Your task to perform on an android device: Search for "razer kraken" on costco, select the first entry, and add it to the cart. Image 0: 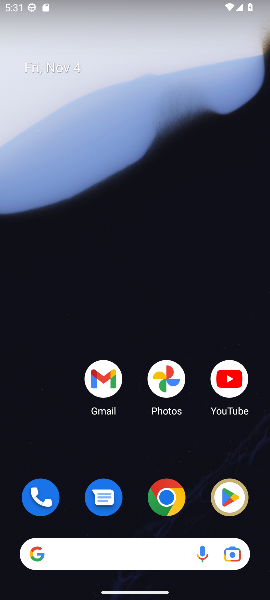
Step 0: click (166, 505)
Your task to perform on an android device: Search for "razer kraken" on costco, select the first entry, and add it to the cart. Image 1: 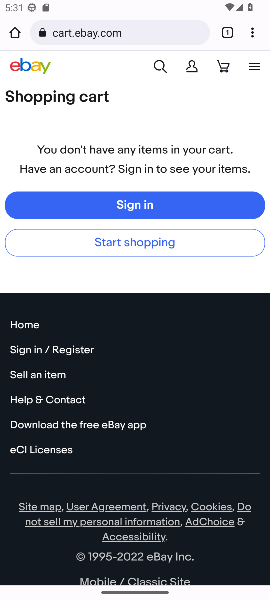
Step 1: click (115, 35)
Your task to perform on an android device: Search for "razer kraken" on costco, select the first entry, and add it to the cart. Image 2: 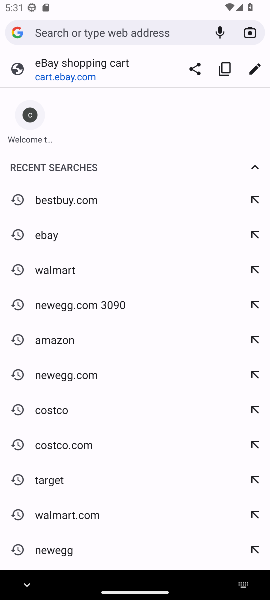
Step 2: click (51, 412)
Your task to perform on an android device: Search for "razer kraken" on costco, select the first entry, and add it to the cart. Image 3: 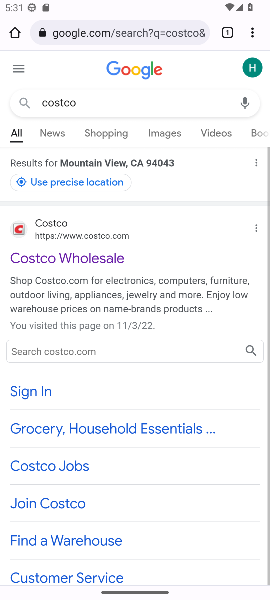
Step 3: click (55, 258)
Your task to perform on an android device: Search for "razer kraken" on costco, select the first entry, and add it to the cart. Image 4: 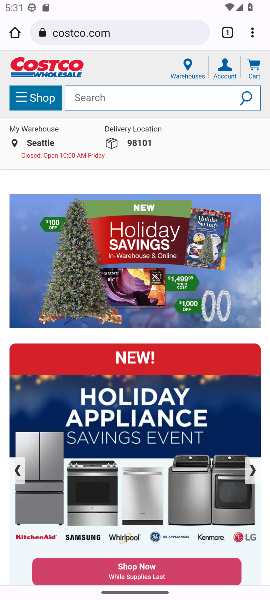
Step 4: click (97, 102)
Your task to perform on an android device: Search for "razer kraken" on costco, select the first entry, and add it to the cart. Image 5: 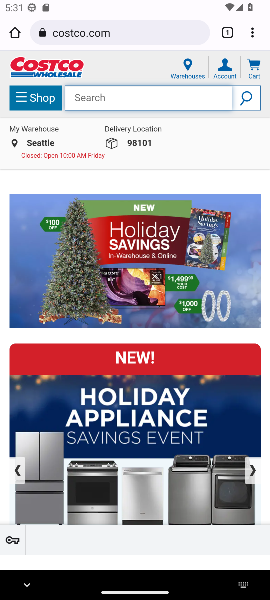
Step 5: type "razer kraken"
Your task to perform on an android device: Search for "razer kraken" on costco, select the first entry, and add it to the cart. Image 6: 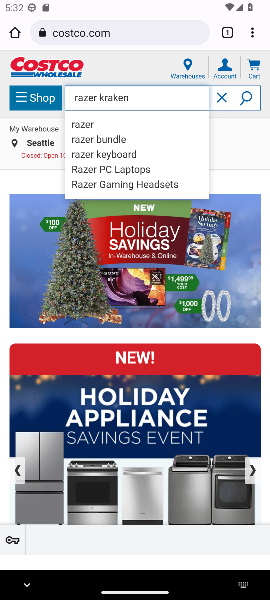
Step 6: click (246, 99)
Your task to perform on an android device: Search for "razer kraken" on costco, select the first entry, and add it to the cart. Image 7: 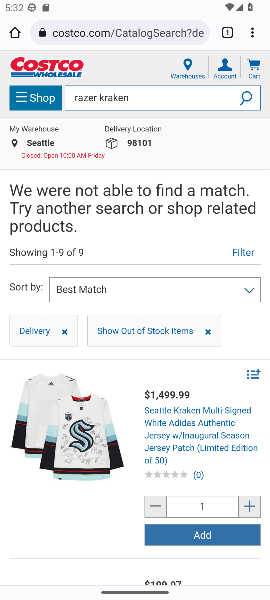
Step 7: task complete